Your task to perform on an android device: Go to network settings Image 0: 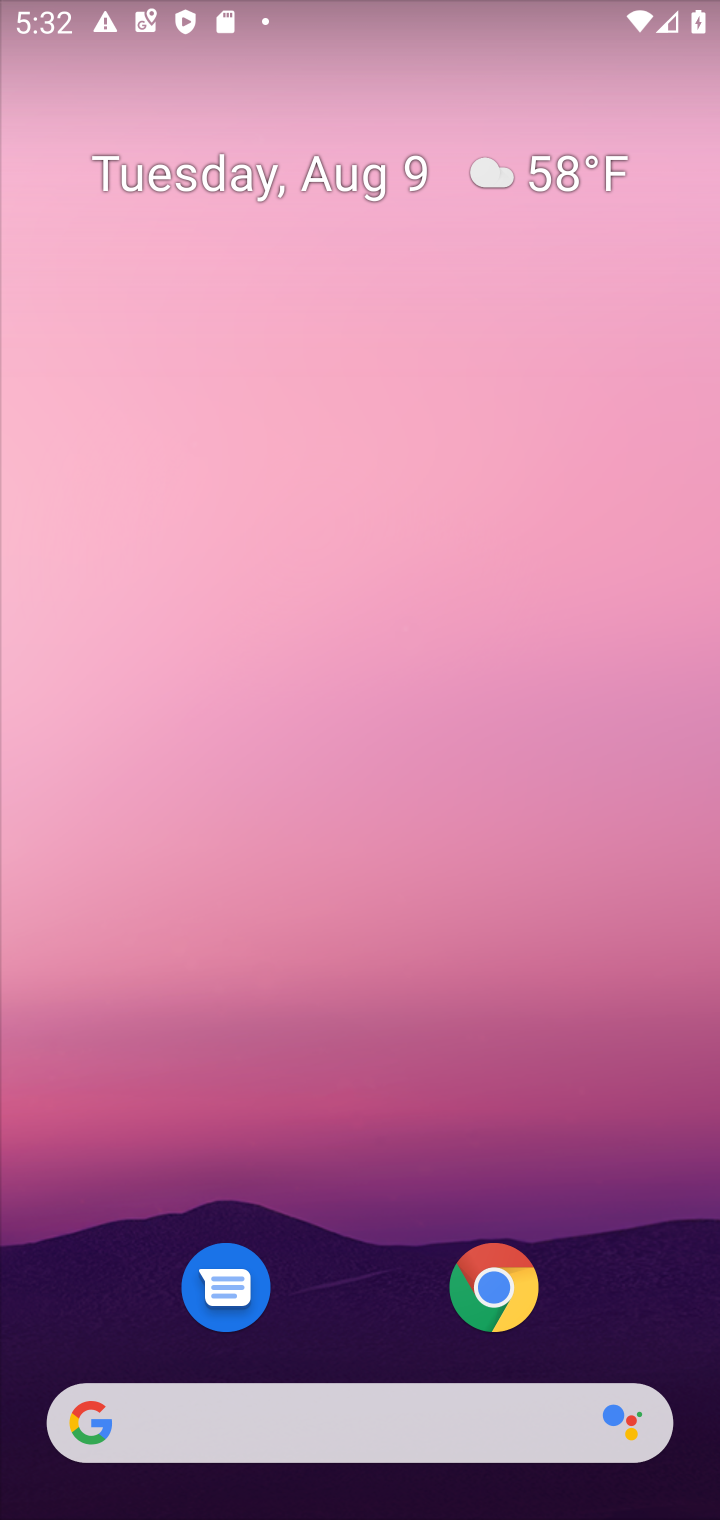
Step 0: drag from (352, 816) to (370, 286)
Your task to perform on an android device: Go to network settings Image 1: 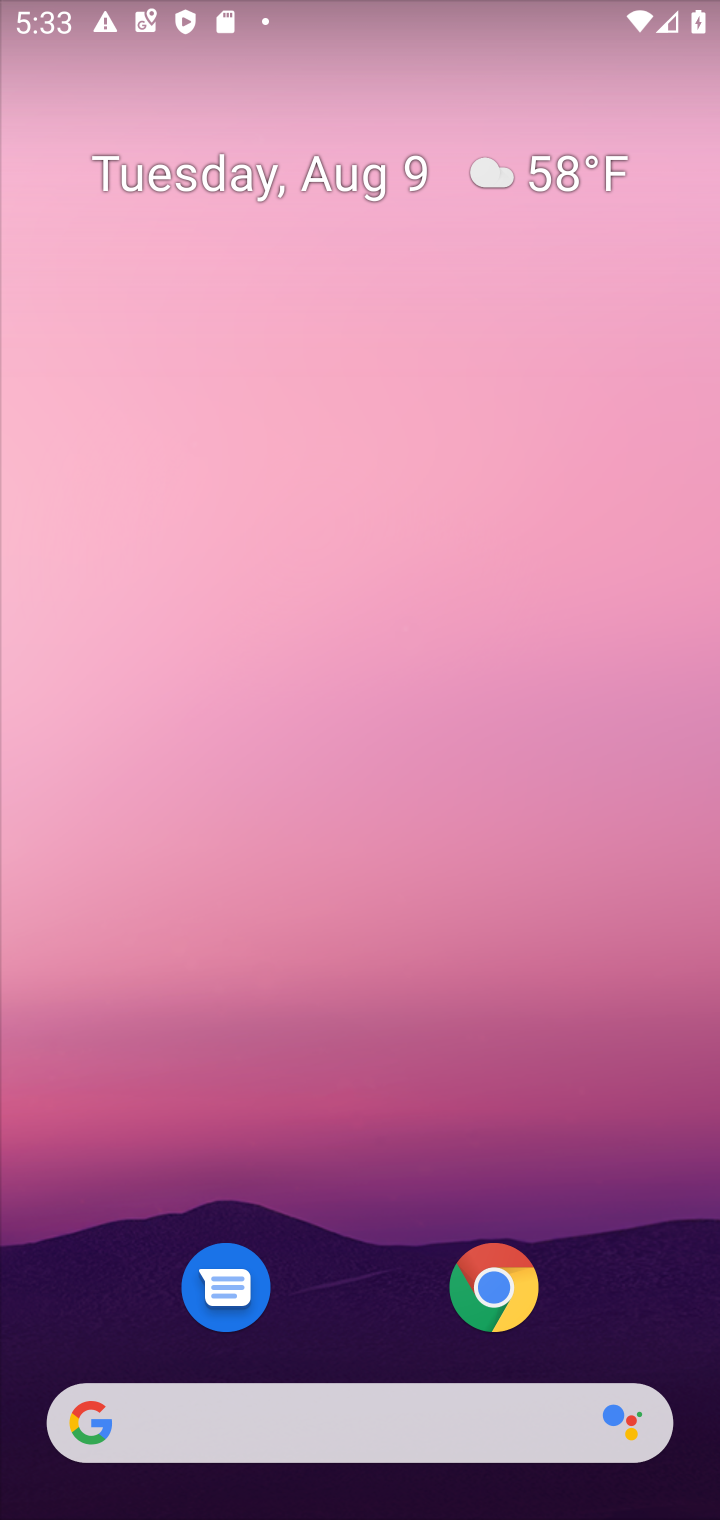
Step 1: drag from (243, 681) to (243, 361)
Your task to perform on an android device: Go to network settings Image 2: 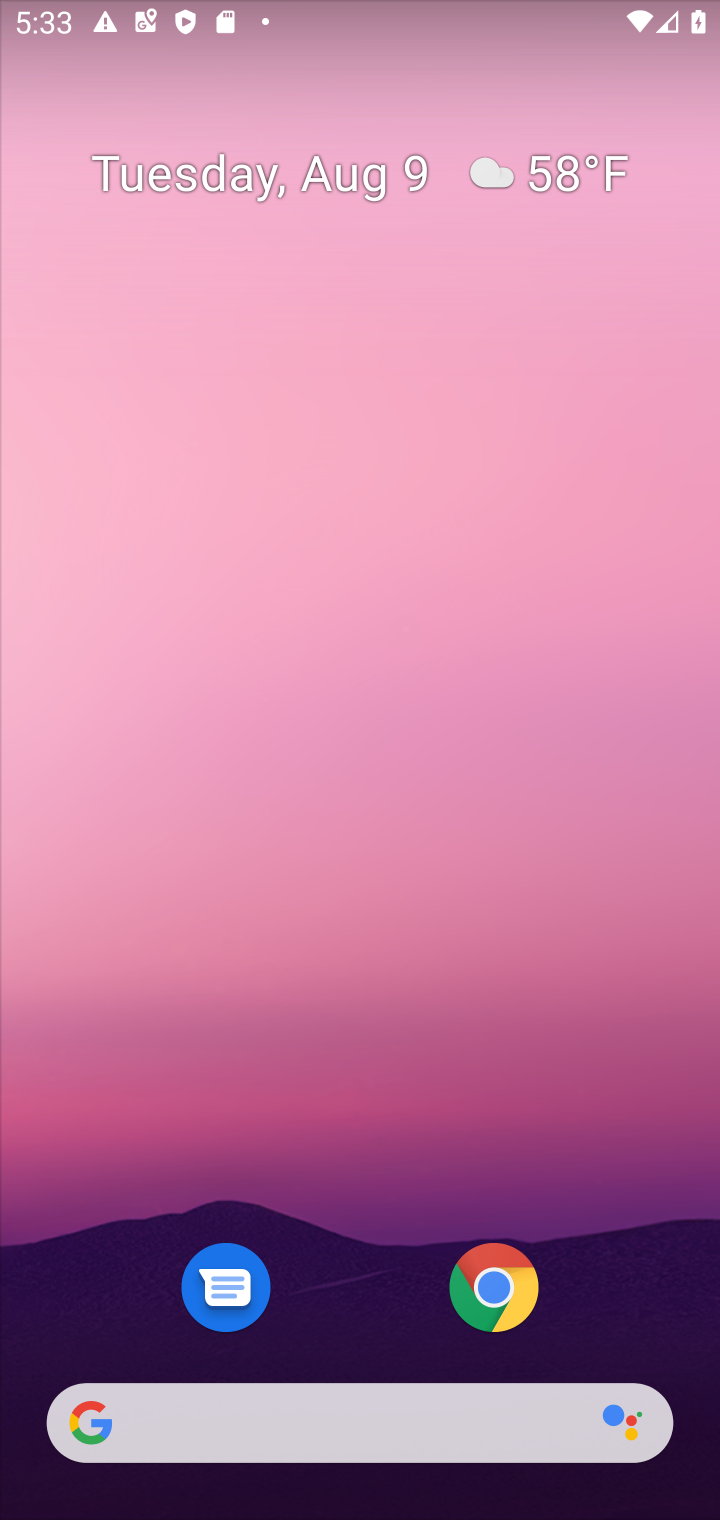
Step 2: drag from (354, 1227) to (95, 315)
Your task to perform on an android device: Go to network settings Image 3: 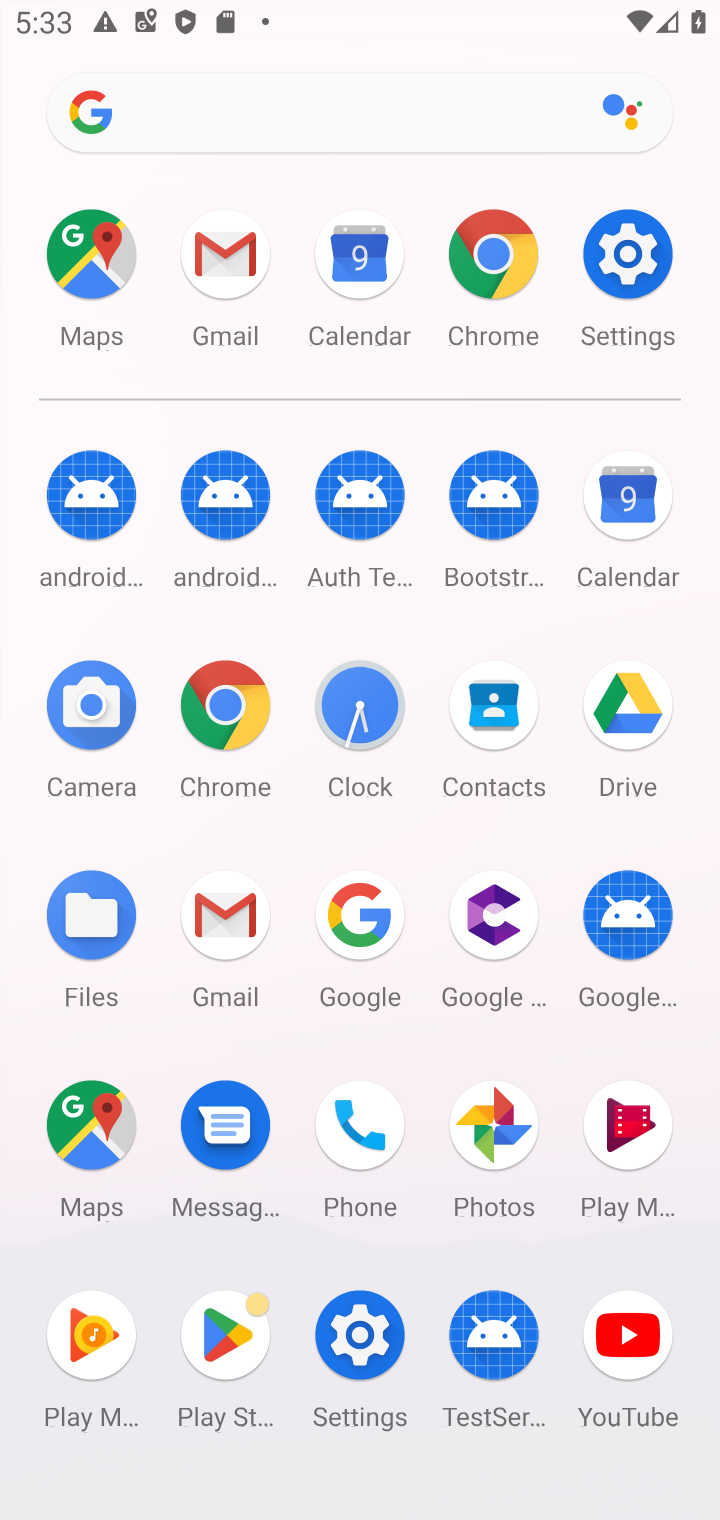
Step 3: click (617, 271)
Your task to perform on an android device: Go to network settings Image 4: 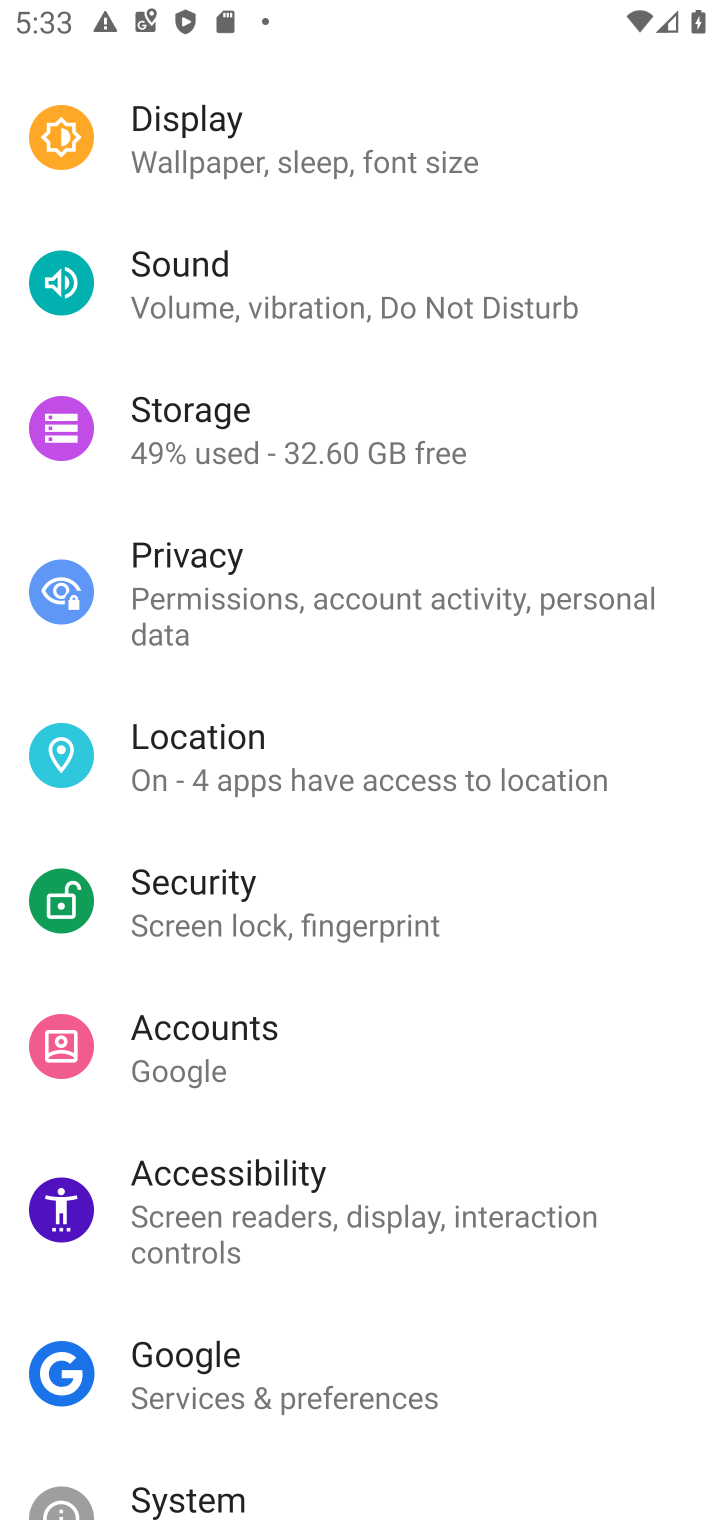
Step 4: drag from (435, 208) to (485, 639)
Your task to perform on an android device: Go to network settings Image 5: 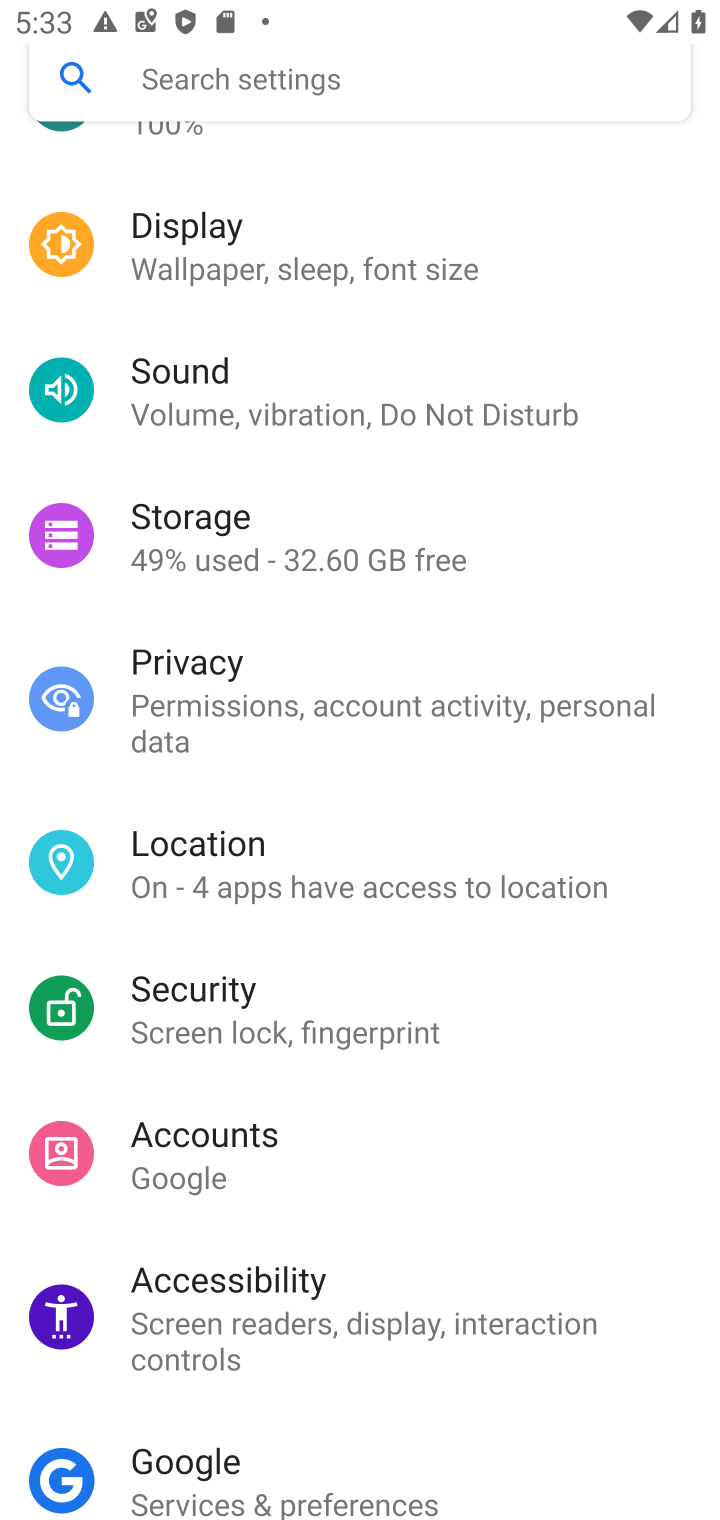
Step 5: drag from (341, 223) to (458, 893)
Your task to perform on an android device: Go to network settings Image 6: 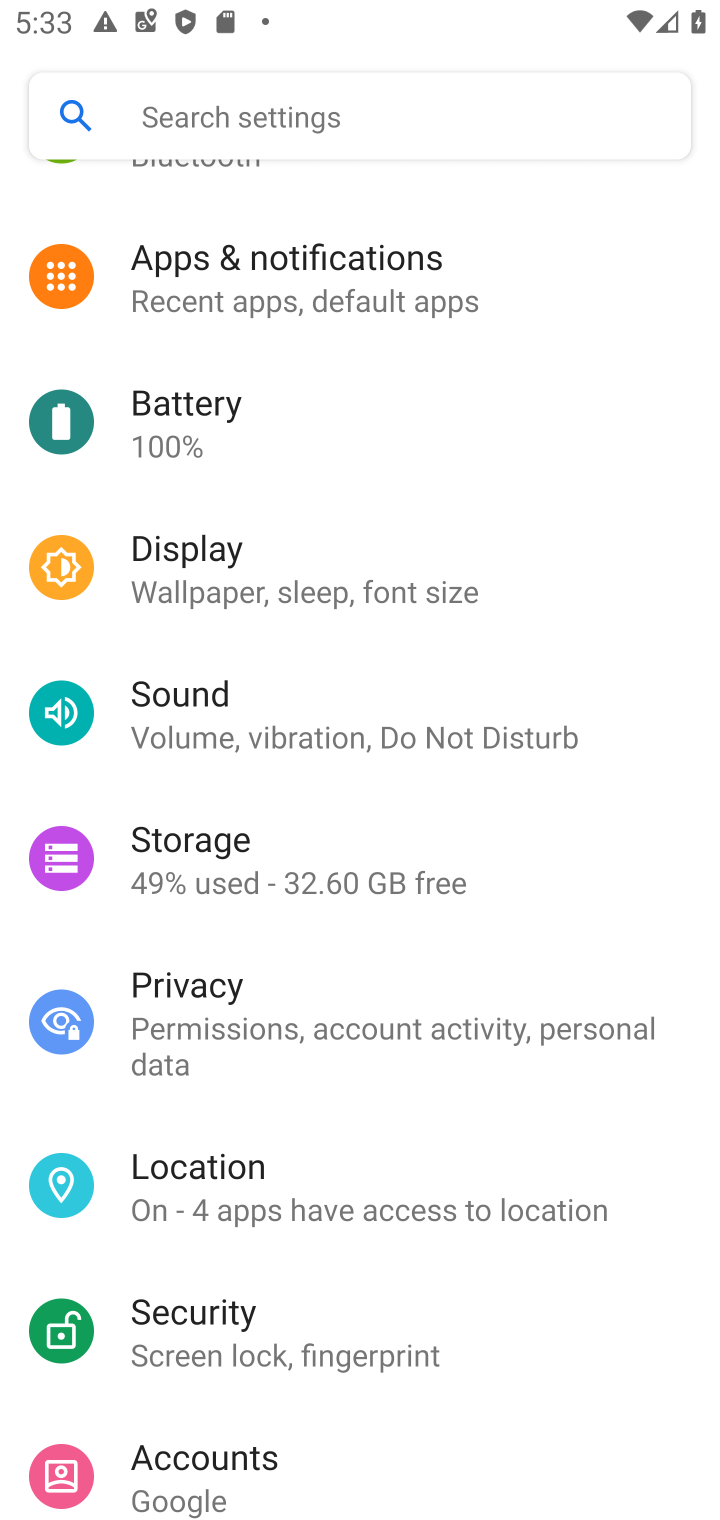
Step 6: drag from (324, 429) to (378, 772)
Your task to perform on an android device: Go to network settings Image 7: 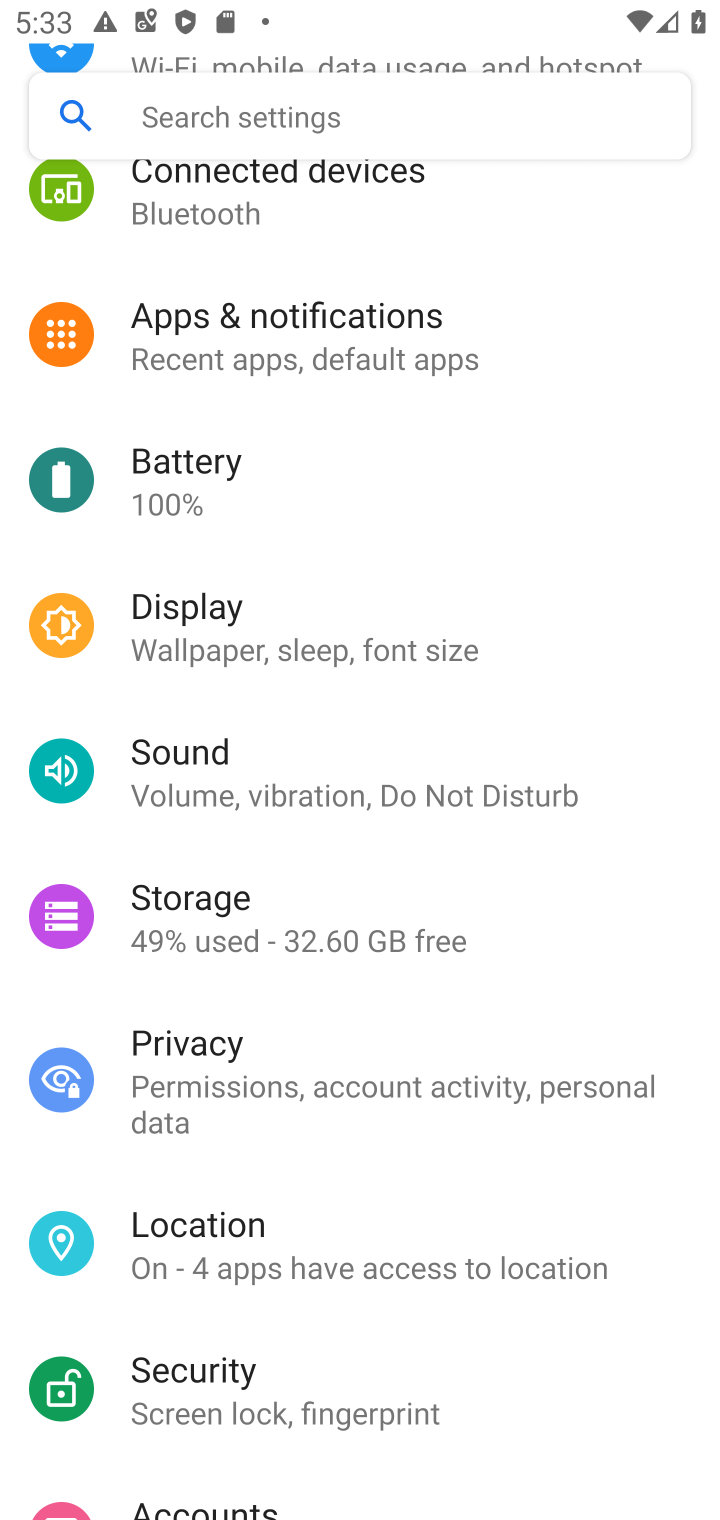
Step 7: drag from (492, 478) to (515, 893)
Your task to perform on an android device: Go to network settings Image 8: 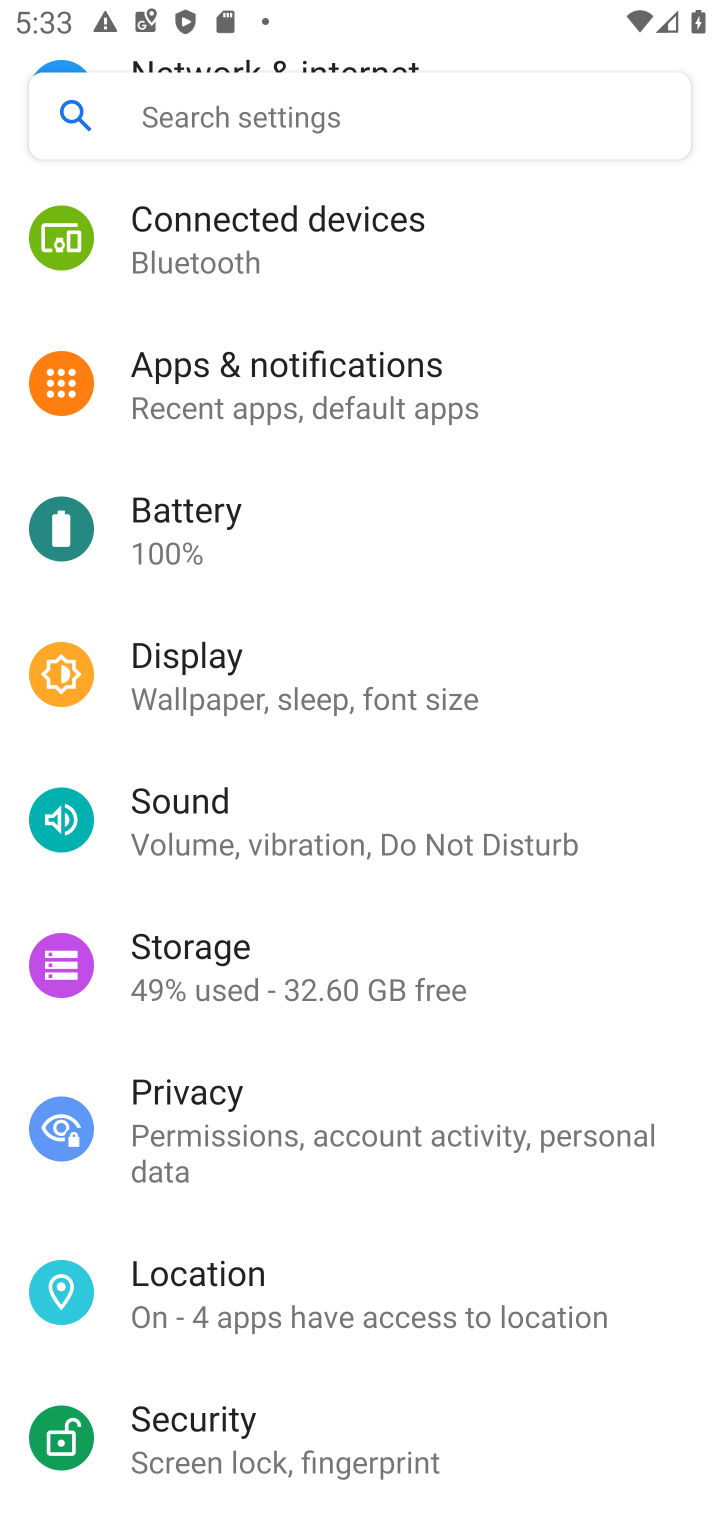
Step 8: drag from (496, 414) to (602, 1109)
Your task to perform on an android device: Go to network settings Image 9: 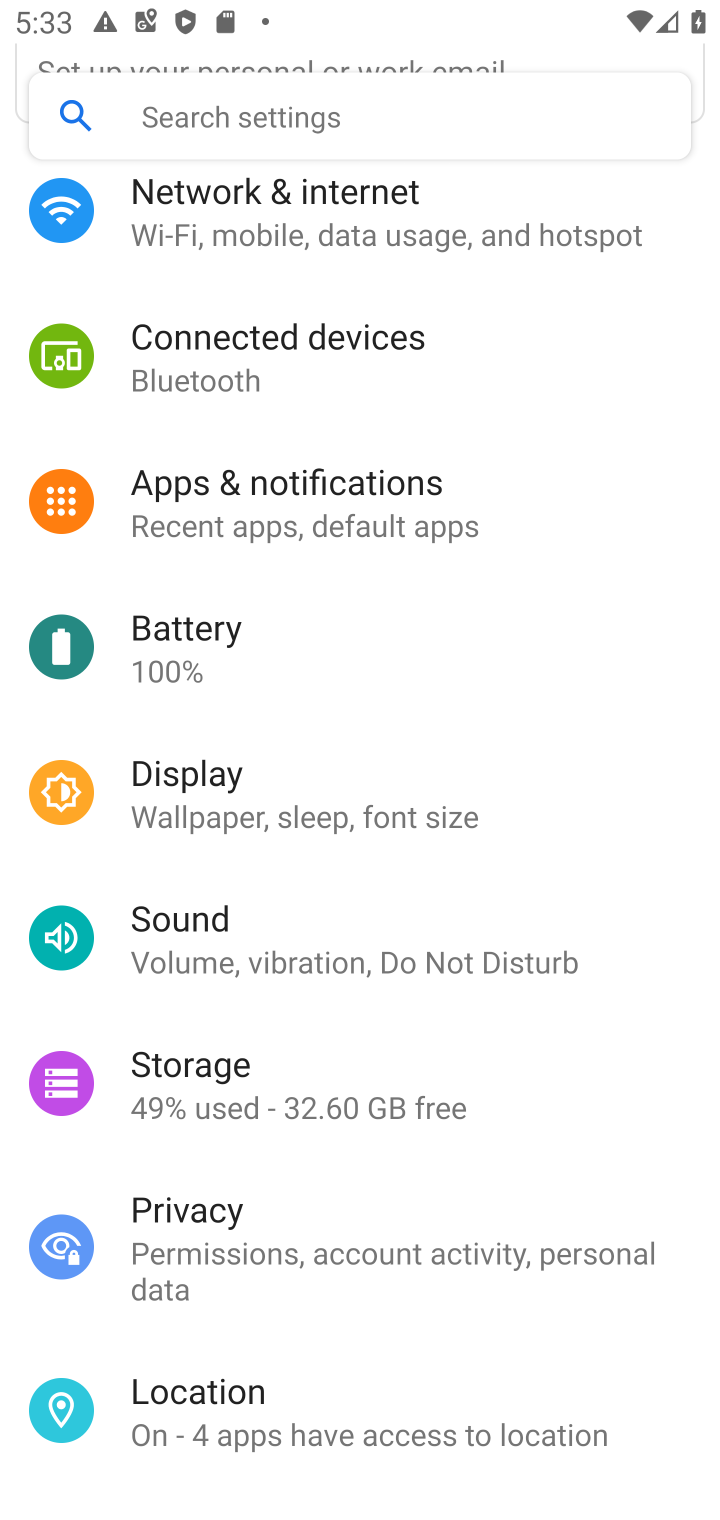
Step 9: click (326, 222)
Your task to perform on an android device: Go to network settings Image 10: 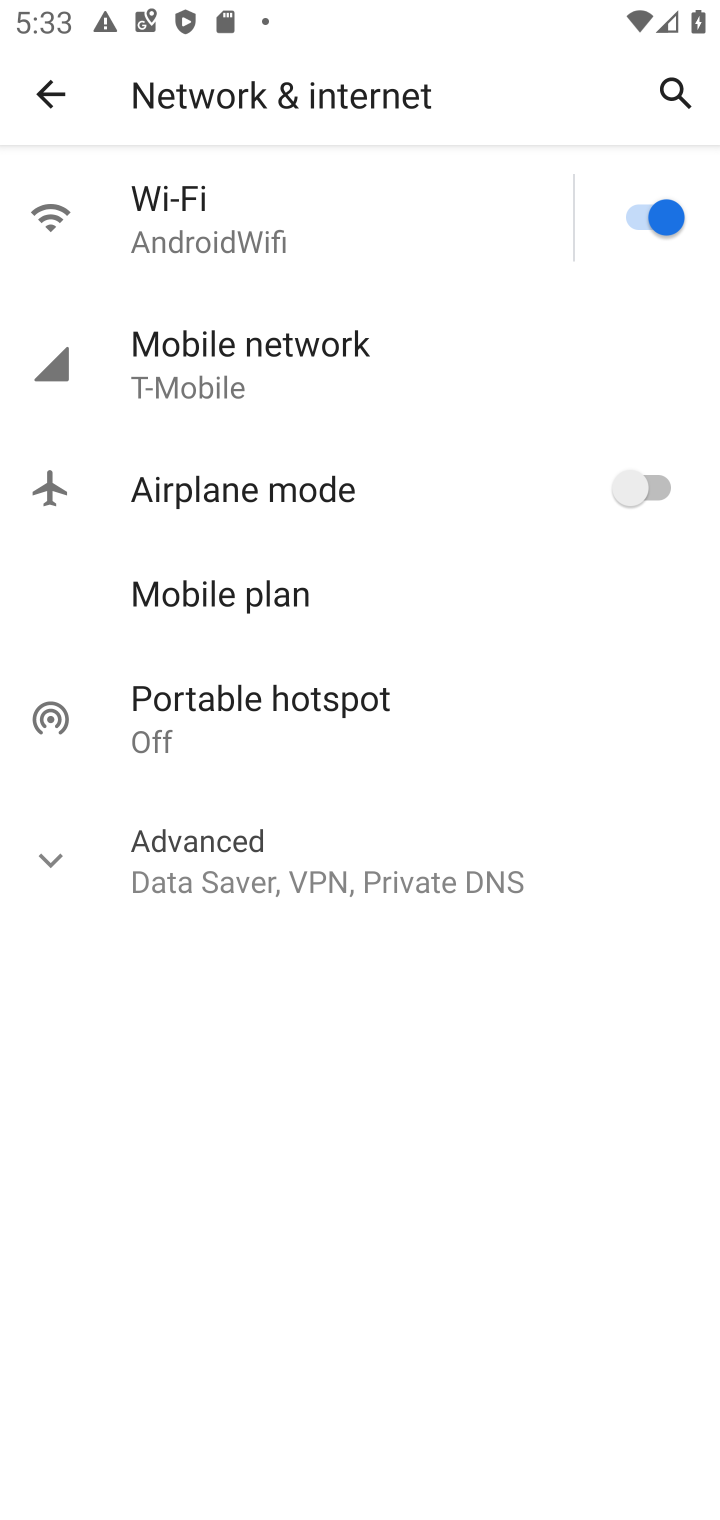
Step 10: task complete